Your task to perform on an android device: Open calendar and show me the first week of next month Image 0: 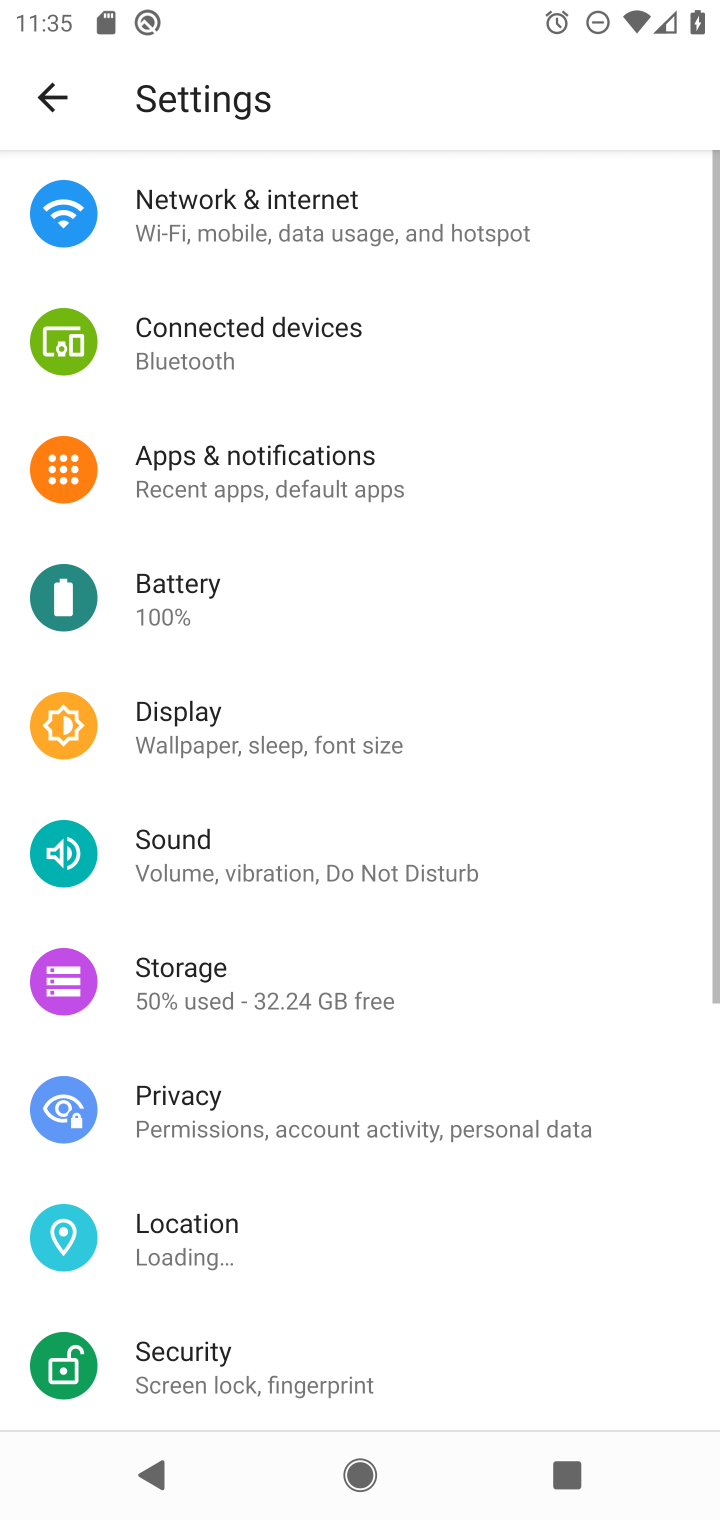
Step 0: press home button
Your task to perform on an android device: Open calendar and show me the first week of next month Image 1: 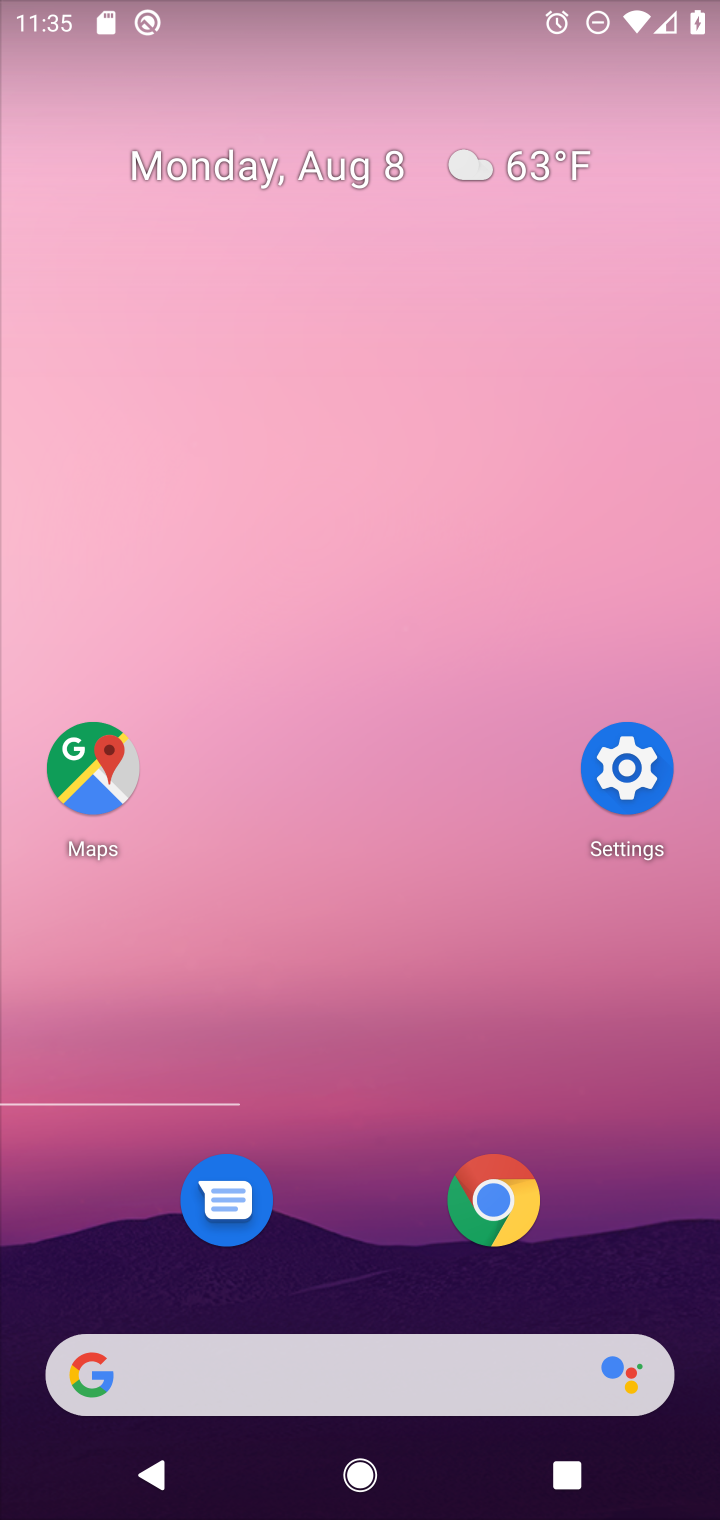
Step 1: drag from (414, 1065) to (440, 127)
Your task to perform on an android device: Open calendar and show me the first week of next month Image 2: 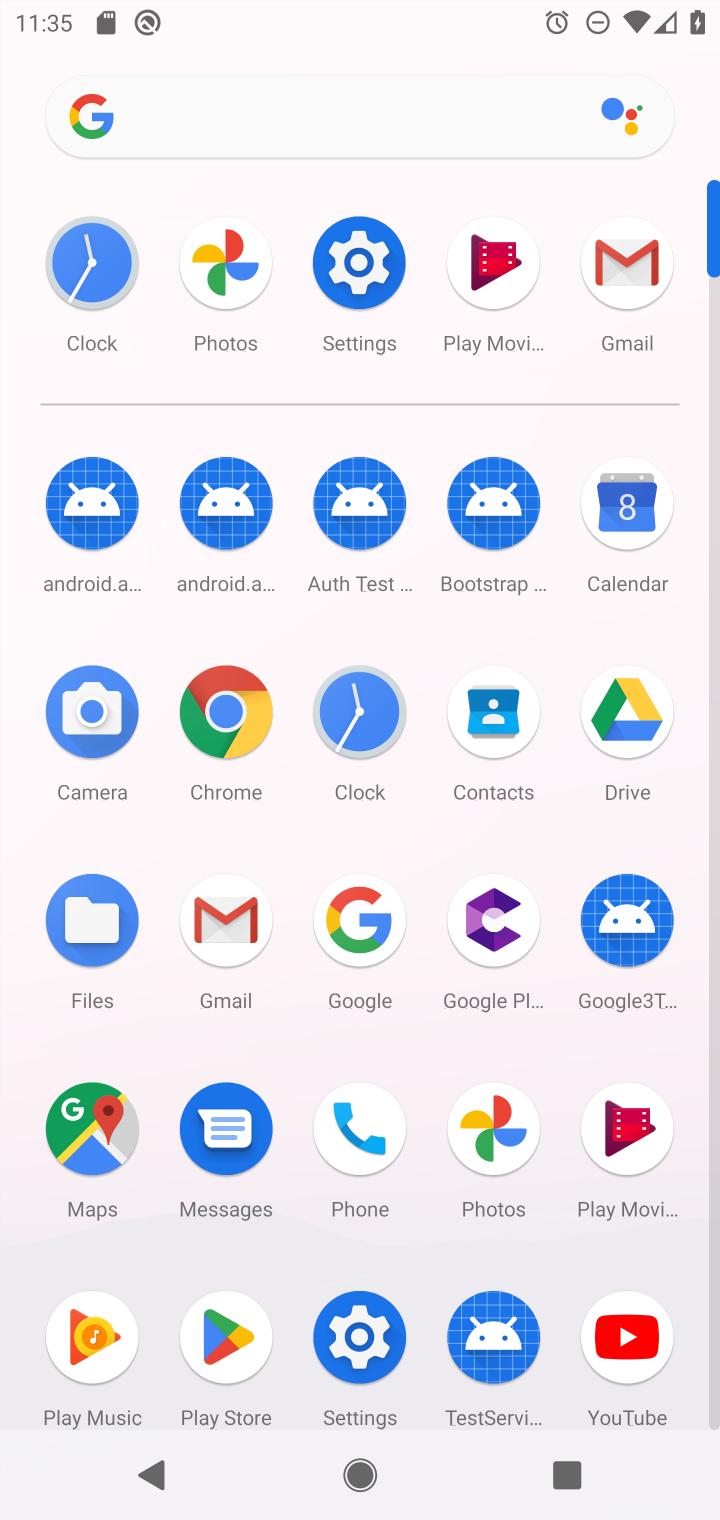
Step 2: click (633, 514)
Your task to perform on an android device: Open calendar and show me the first week of next month Image 3: 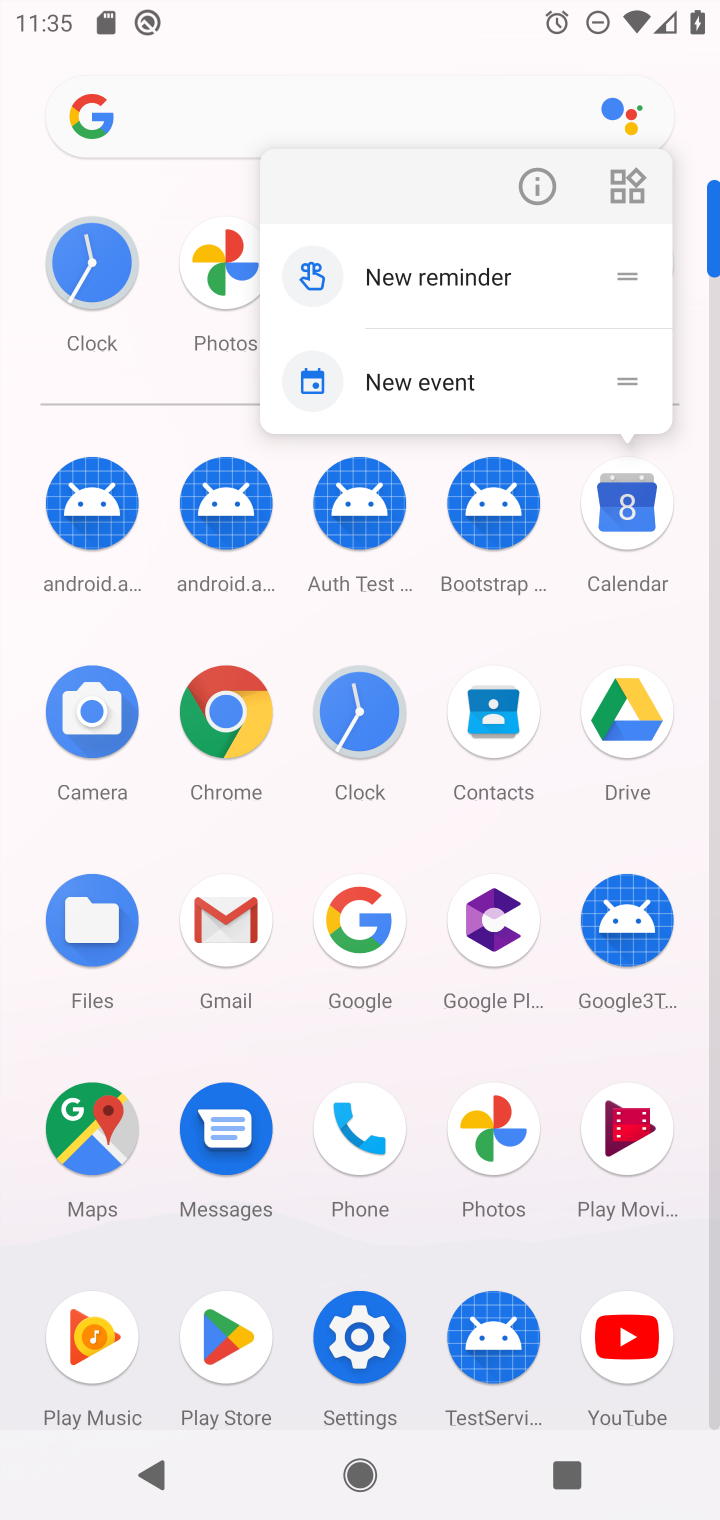
Step 3: click (633, 516)
Your task to perform on an android device: Open calendar and show me the first week of next month Image 4: 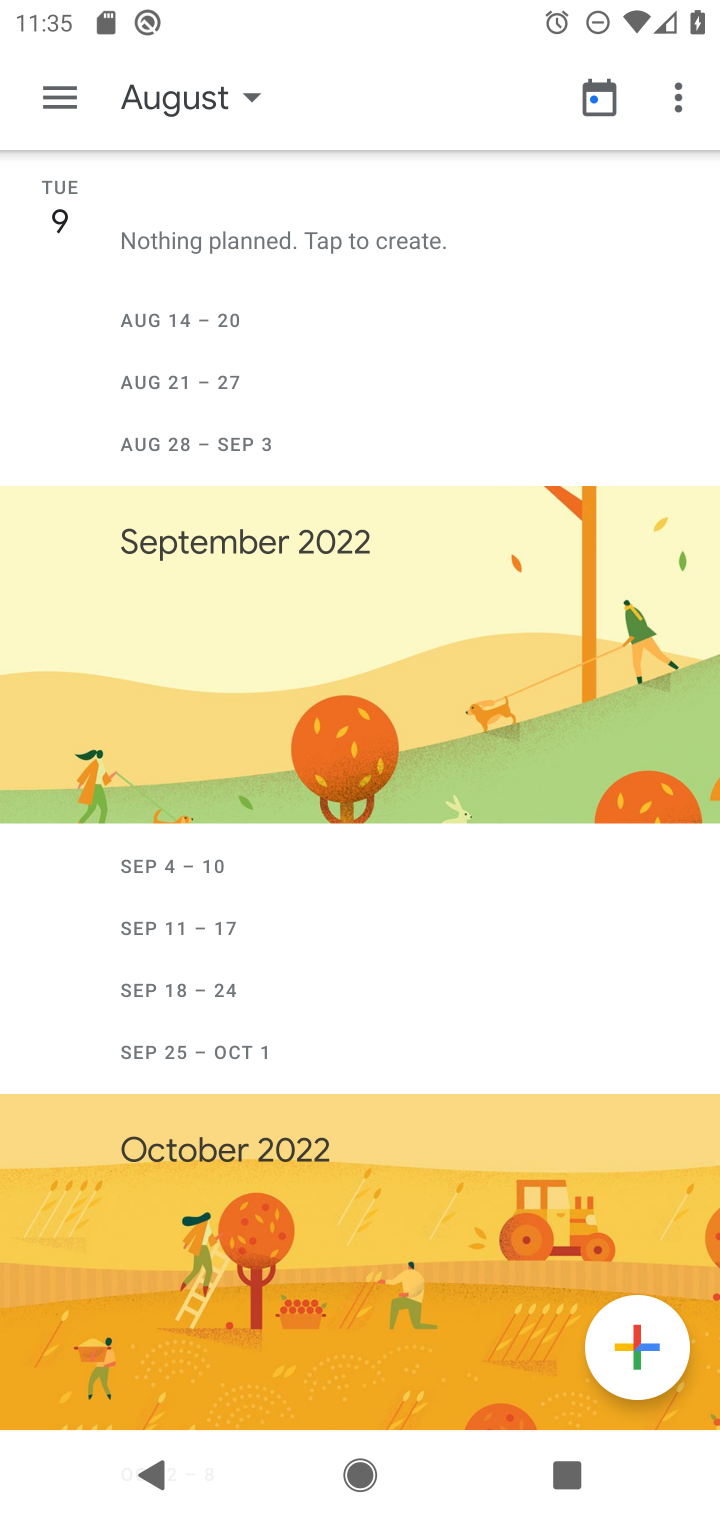
Step 4: drag from (302, 820) to (343, 121)
Your task to perform on an android device: Open calendar and show me the first week of next month Image 5: 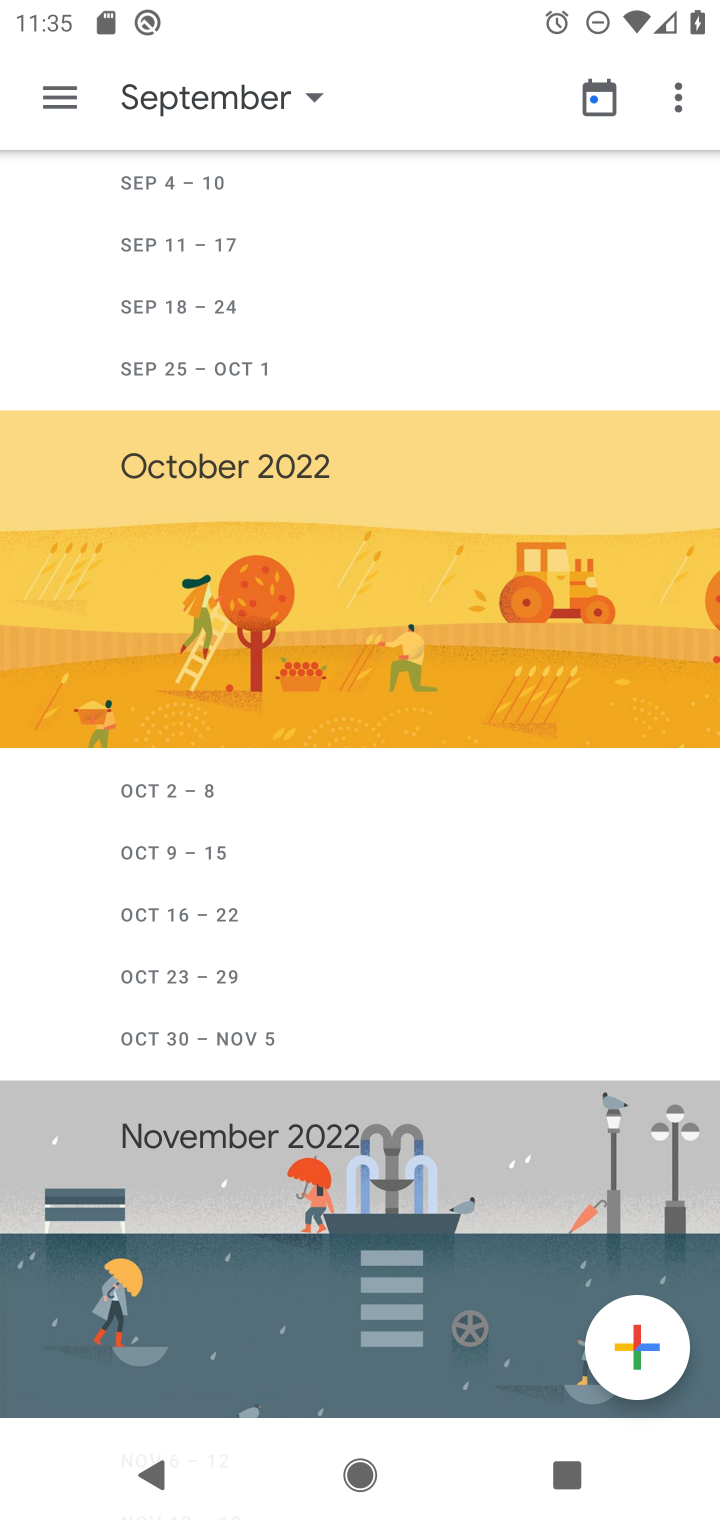
Step 5: click (167, 111)
Your task to perform on an android device: Open calendar and show me the first week of next month Image 6: 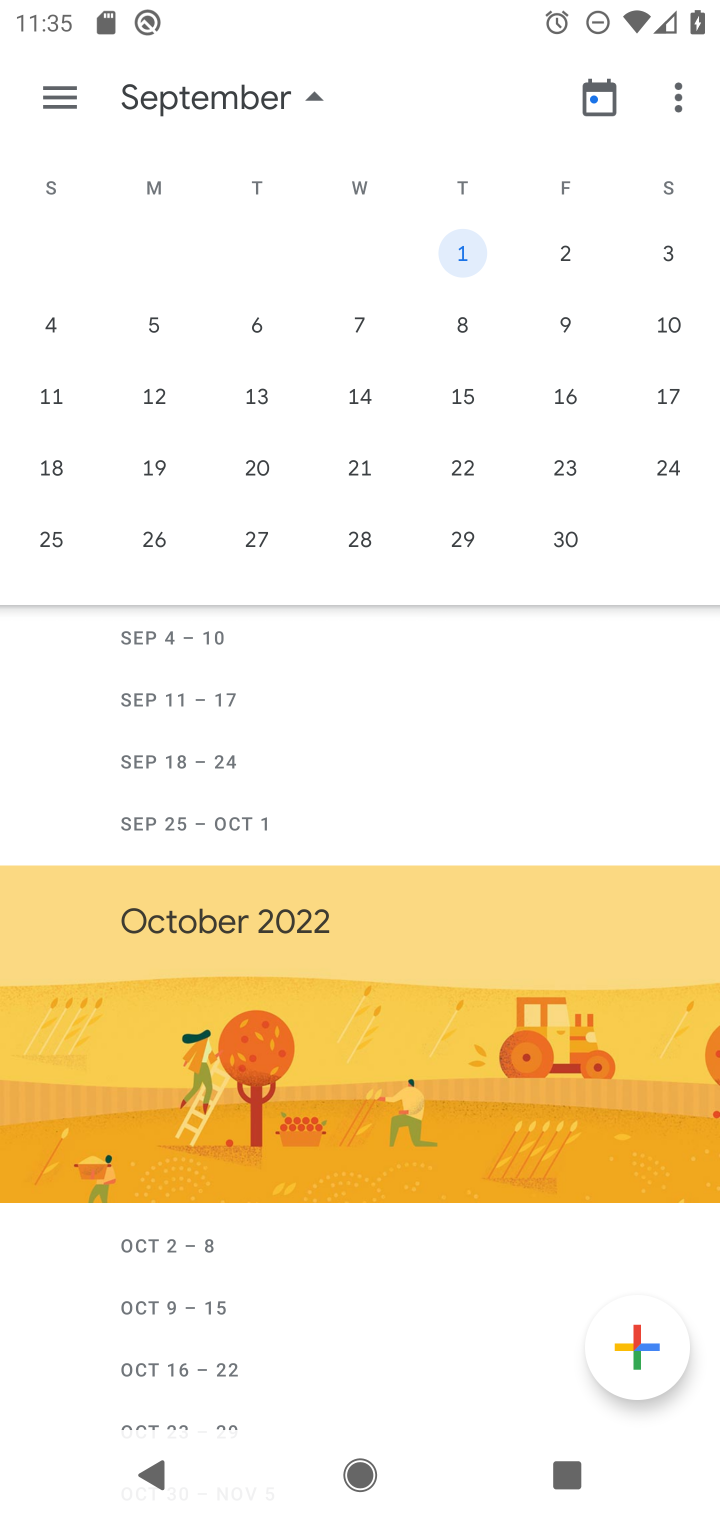
Step 6: click (465, 246)
Your task to perform on an android device: Open calendar and show me the first week of next month Image 7: 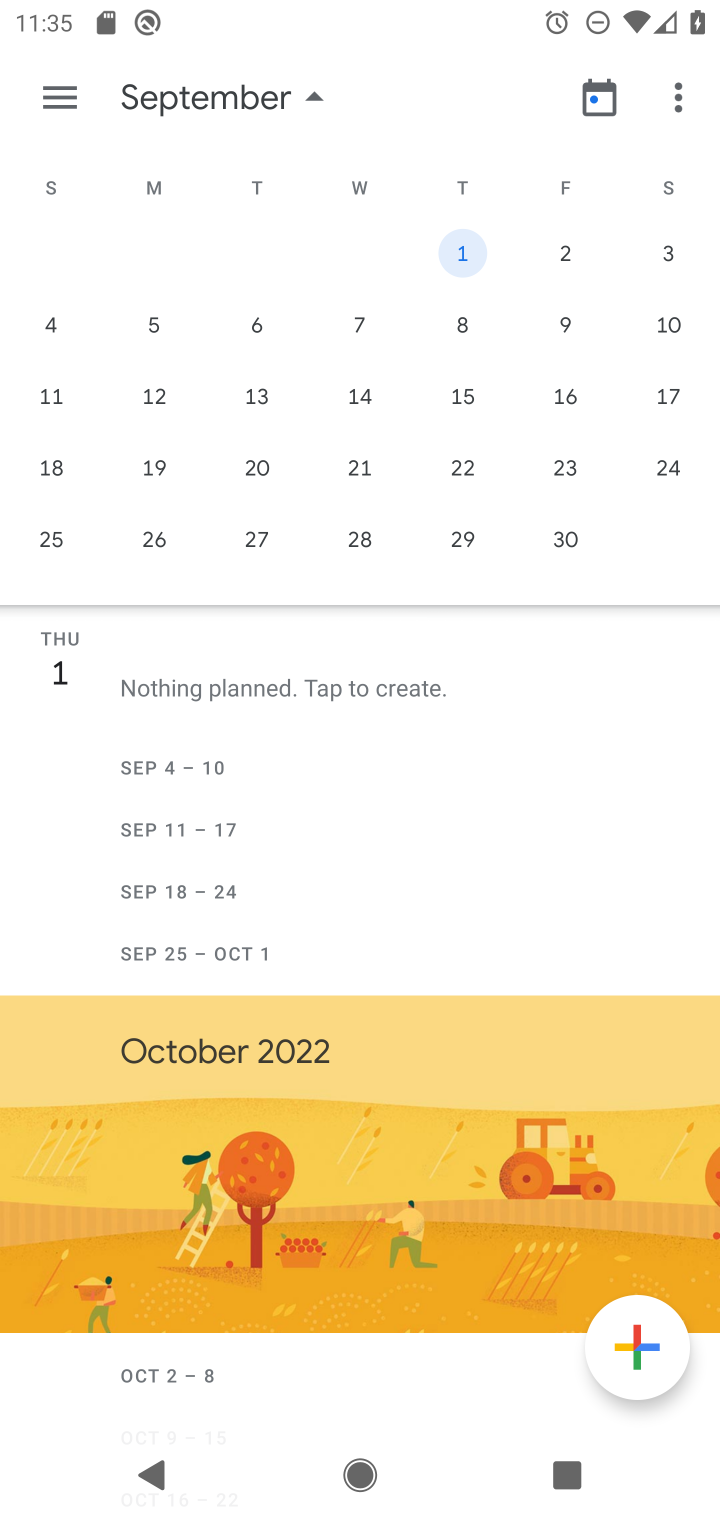
Step 7: click (45, 72)
Your task to perform on an android device: Open calendar and show me the first week of next month Image 8: 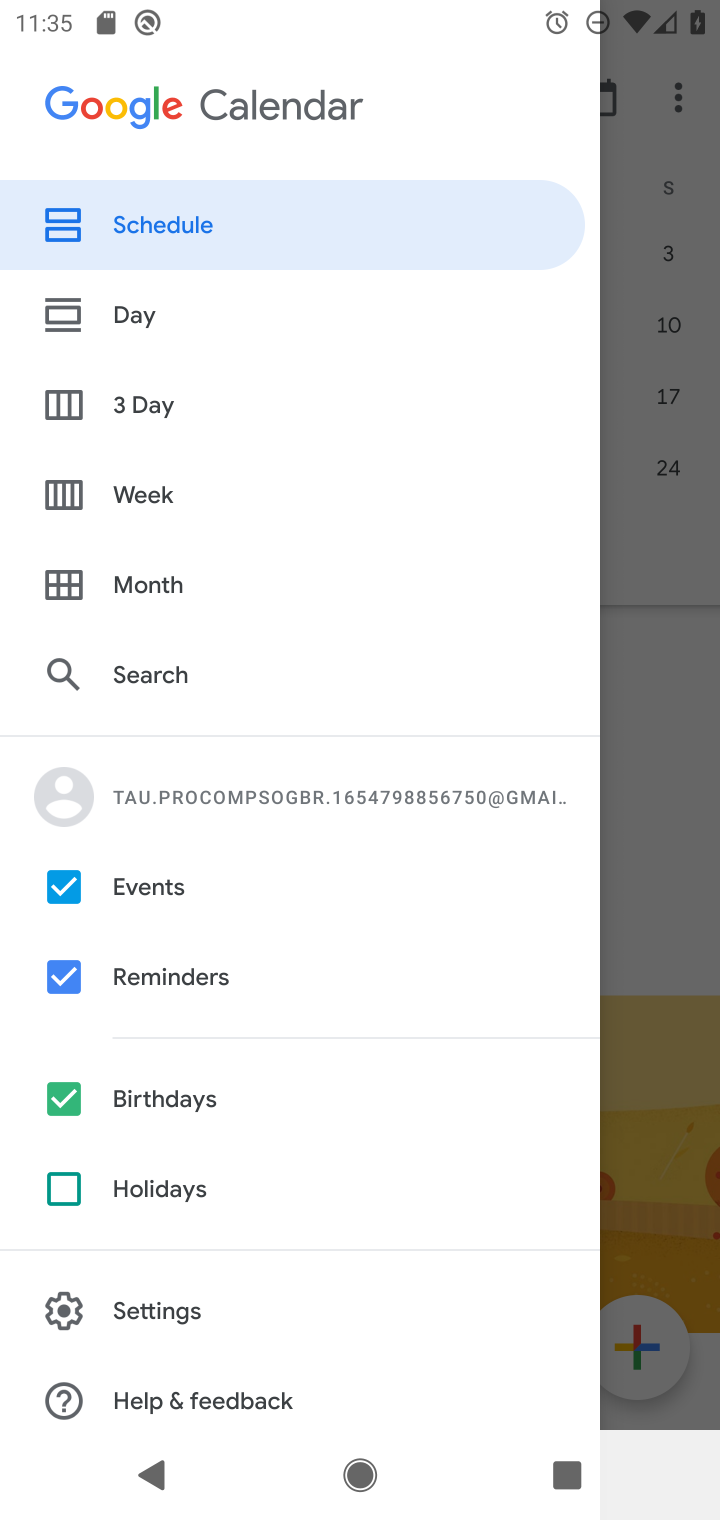
Step 8: click (131, 488)
Your task to perform on an android device: Open calendar and show me the first week of next month Image 9: 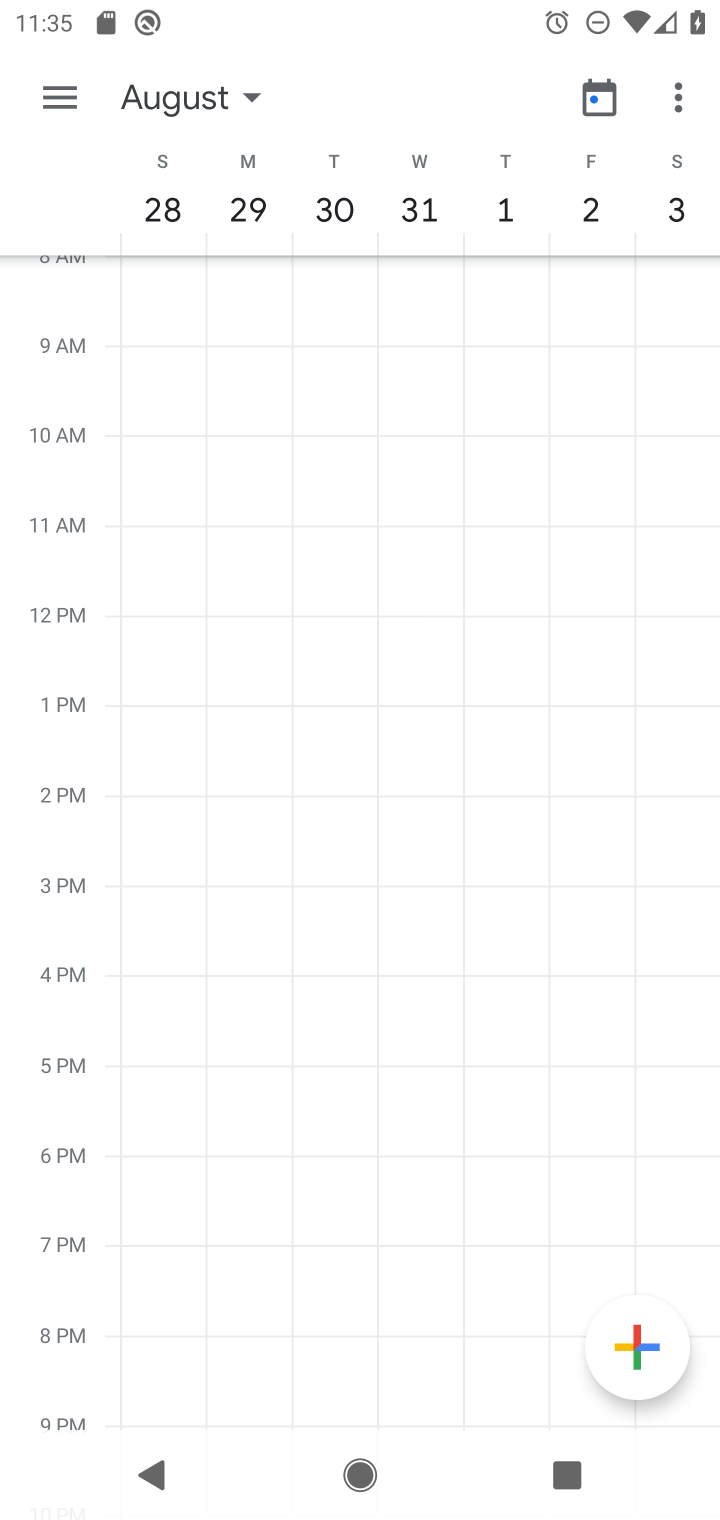
Step 9: task complete